Your task to perform on an android device: Search for logitech g pro on amazon.com, select the first entry, and add it to the cart. Image 0: 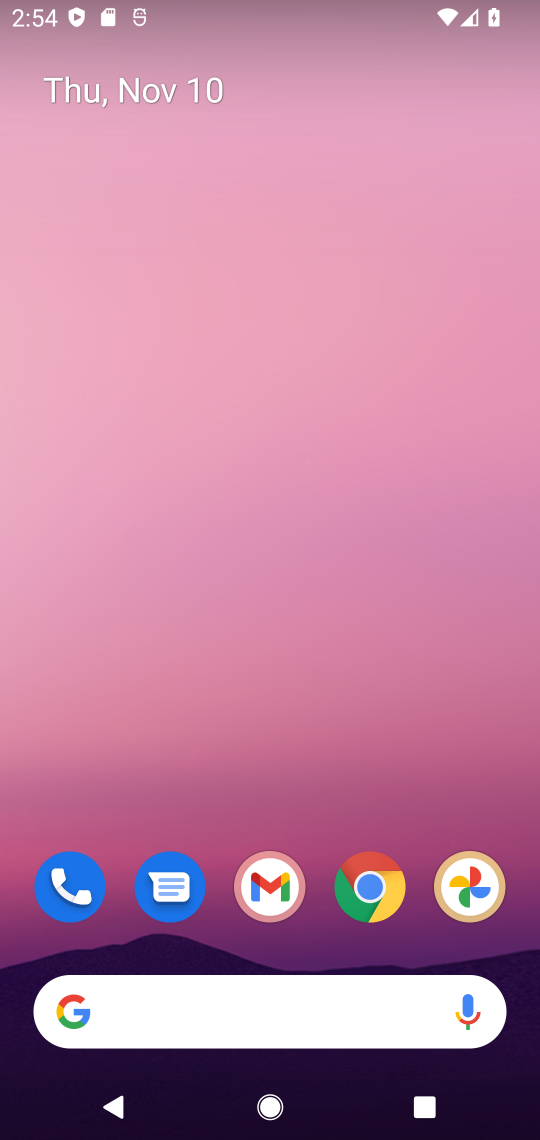
Step 0: drag from (302, 953) to (336, 5)
Your task to perform on an android device: Search for logitech g pro on amazon.com, select the first entry, and add it to the cart. Image 1: 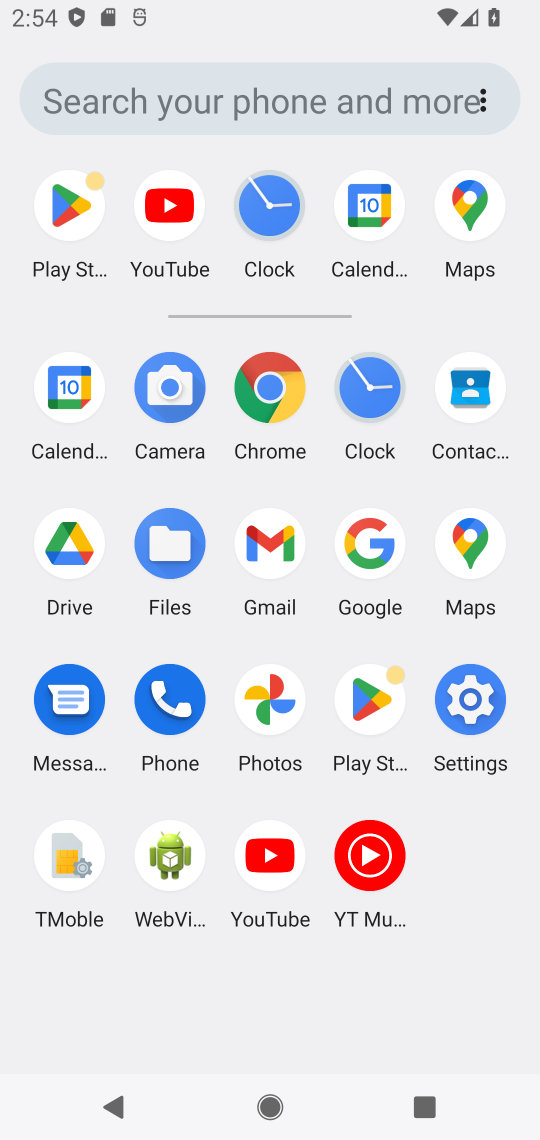
Step 1: click (265, 391)
Your task to perform on an android device: Search for logitech g pro on amazon.com, select the first entry, and add it to the cart. Image 2: 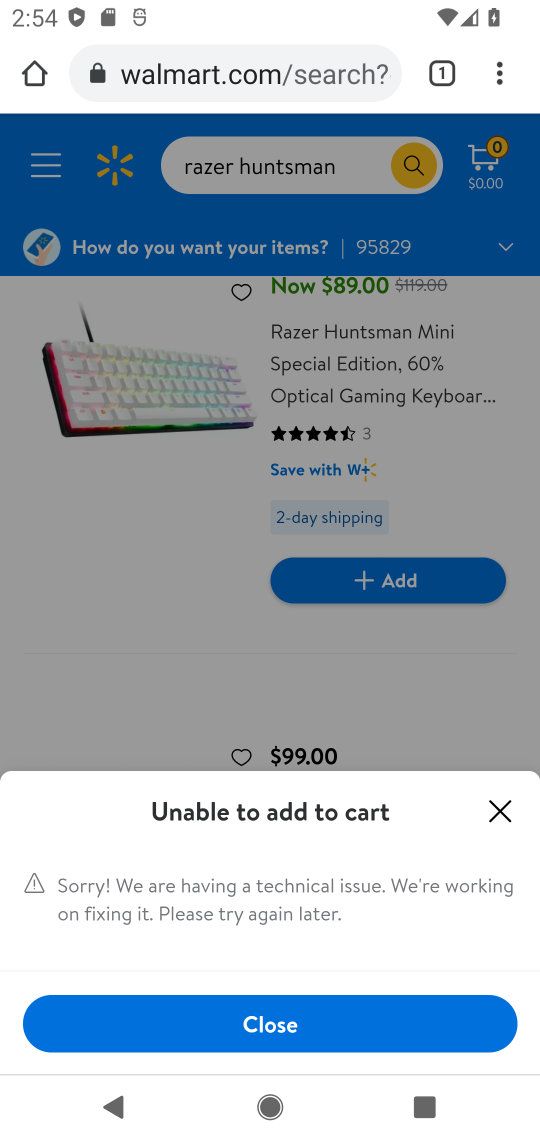
Step 2: click (295, 67)
Your task to perform on an android device: Search for logitech g pro on amazon.com, select the first entry, and add it to the cart. Image 3: 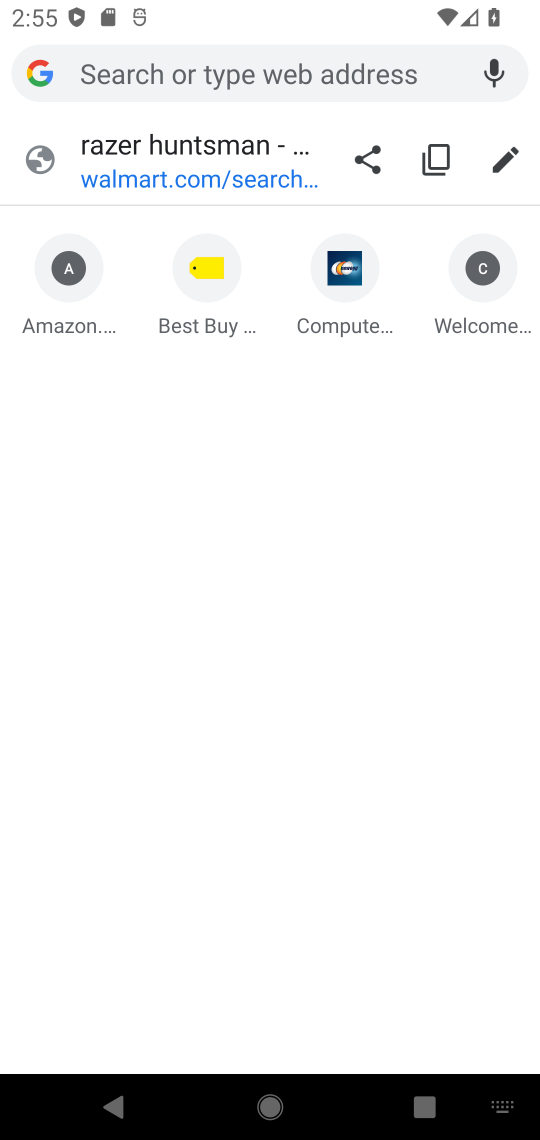
Step 3: type "amazon.com"
Your task to perform on an android device: Search for logitech g pro on amazon.com, select the first entry, and add it to the cart. Image 4: 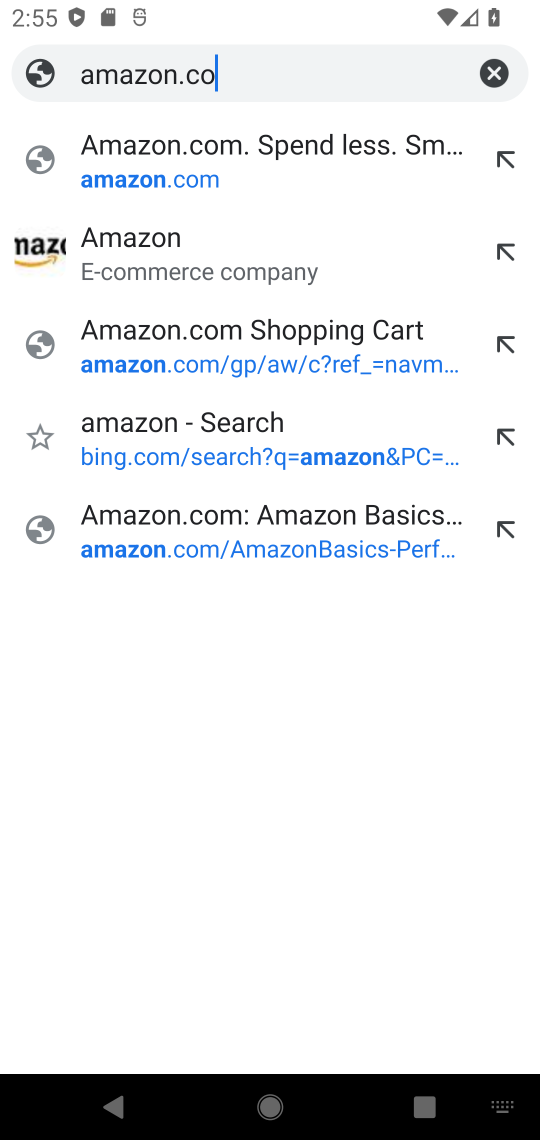
Step 4: press enter
Your task to perform on an android device: Search for logitech g pro on amazon.com, select the first entry, and add it to the cart. Image 5: 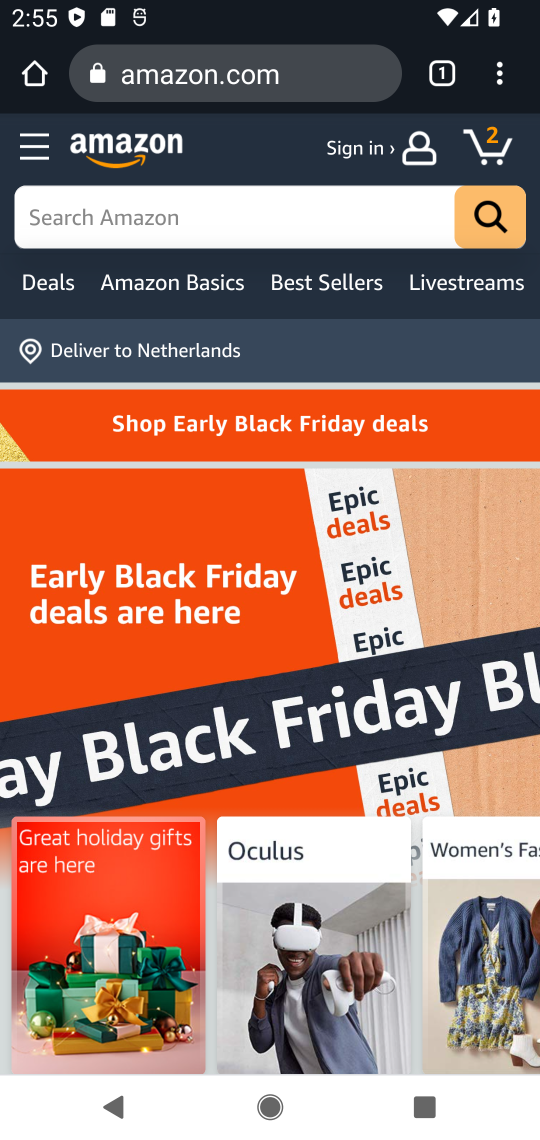
Step 5: click (232, 223)
Your task to perform on an android device: Search for logitech g pro on amazon.com, select the first entry, and add it to the cart. Image 6: 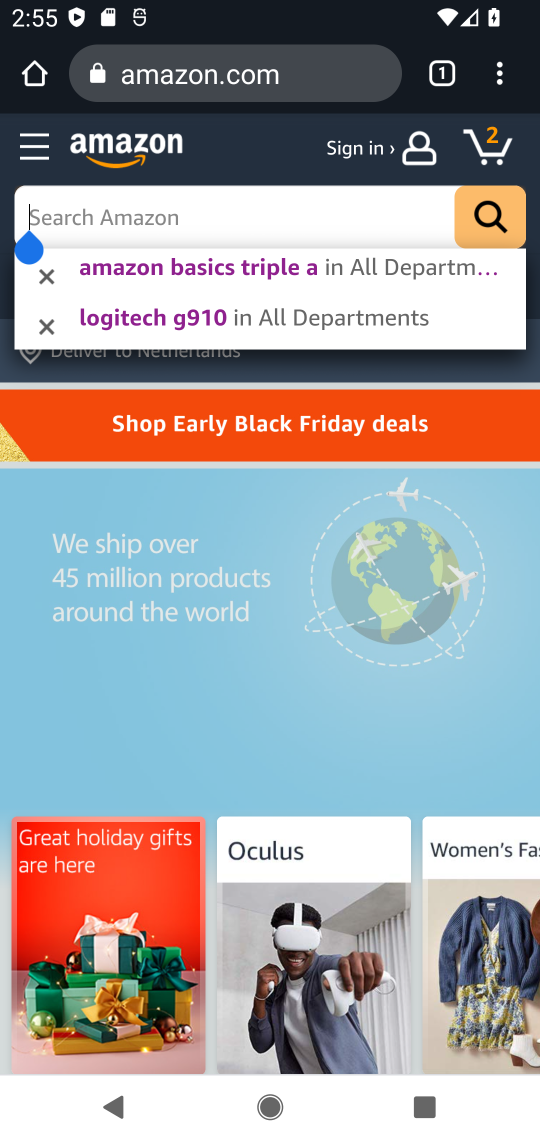
Step 6: type "logitech g pro"
Your task to perform on an android device: Search for logitech g pro on amazon.com, select the first entry, and add it to the cart. Image 7: 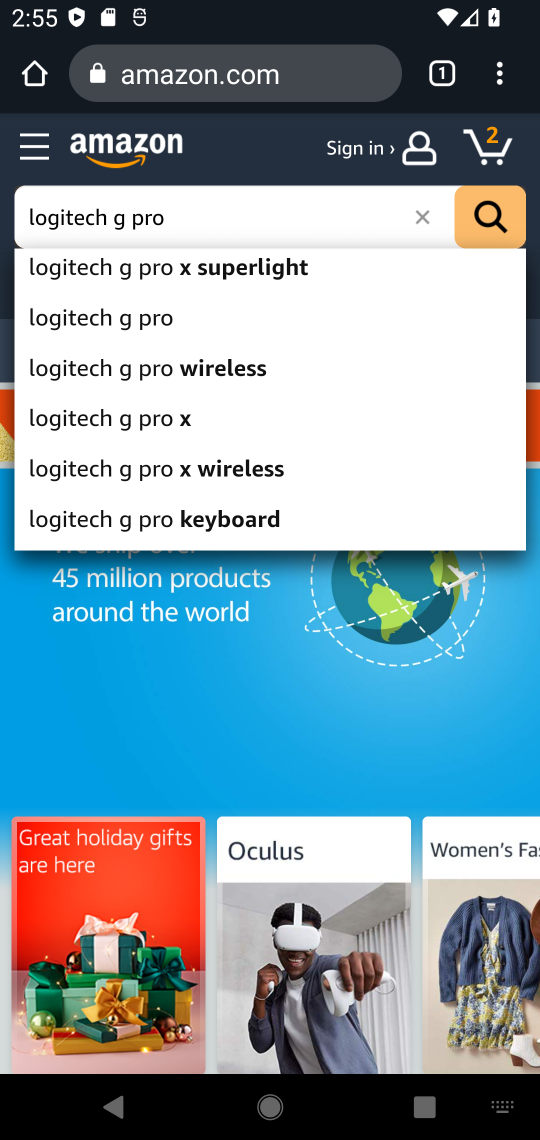
Step 7: press enter
Your task to perform on an android device: Search for logitech g pro on amazon.com, select the first entry, and add it to the cart. Image 8: 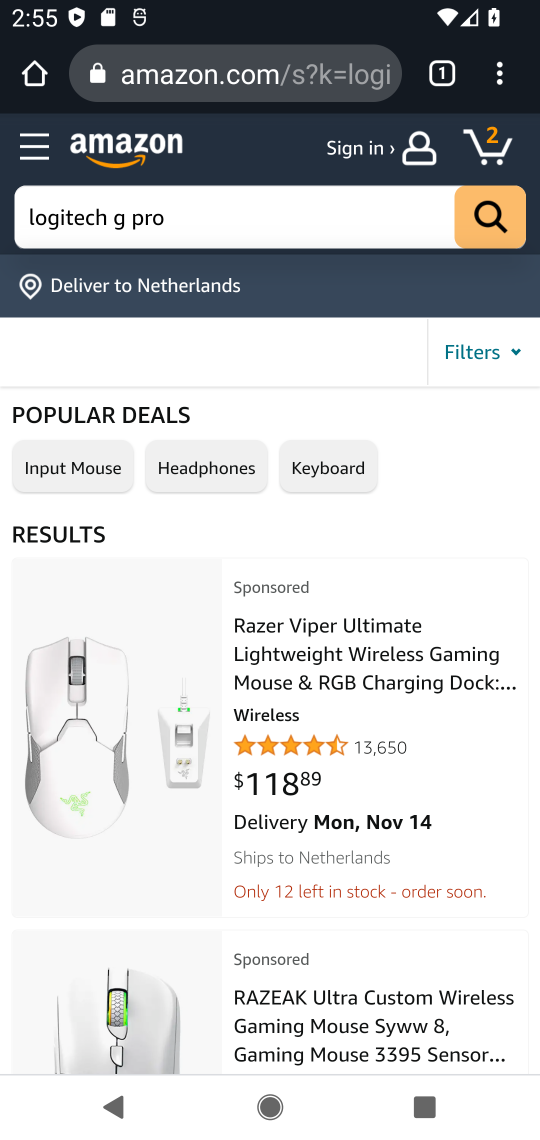
Step 8: drag from (391, 989) to (329, 264)
Your task to perform on an android device: Search for logitech g pro on amazon.com, select the first entry, and add it to the cart. Image 9: 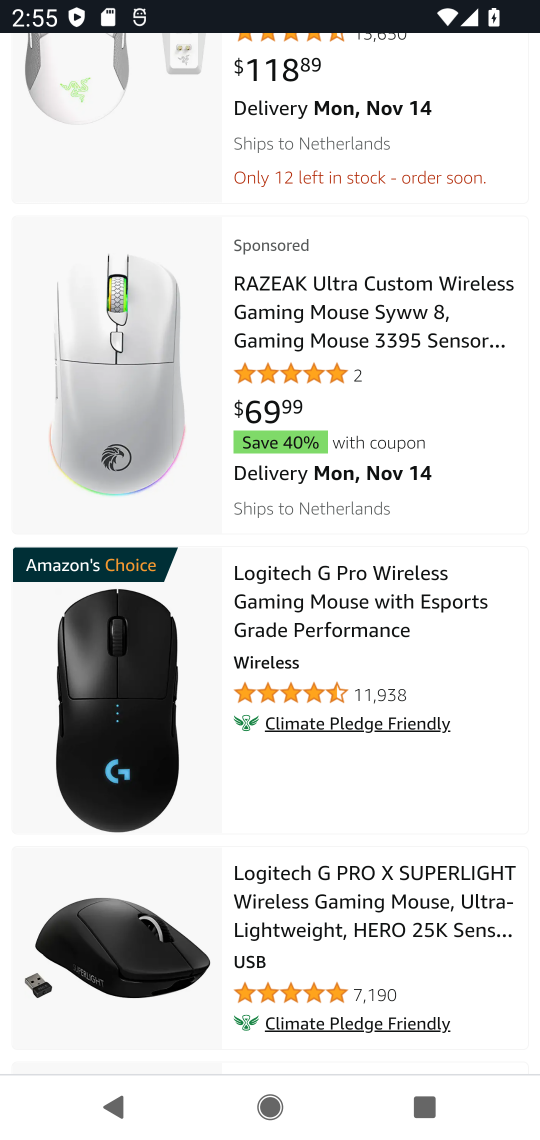
Step 9: click (329, 616)
Your task to perform on an android device: Search for logitech g pro on amazon.com, select the first entry, and add it to the cart. Image 10: 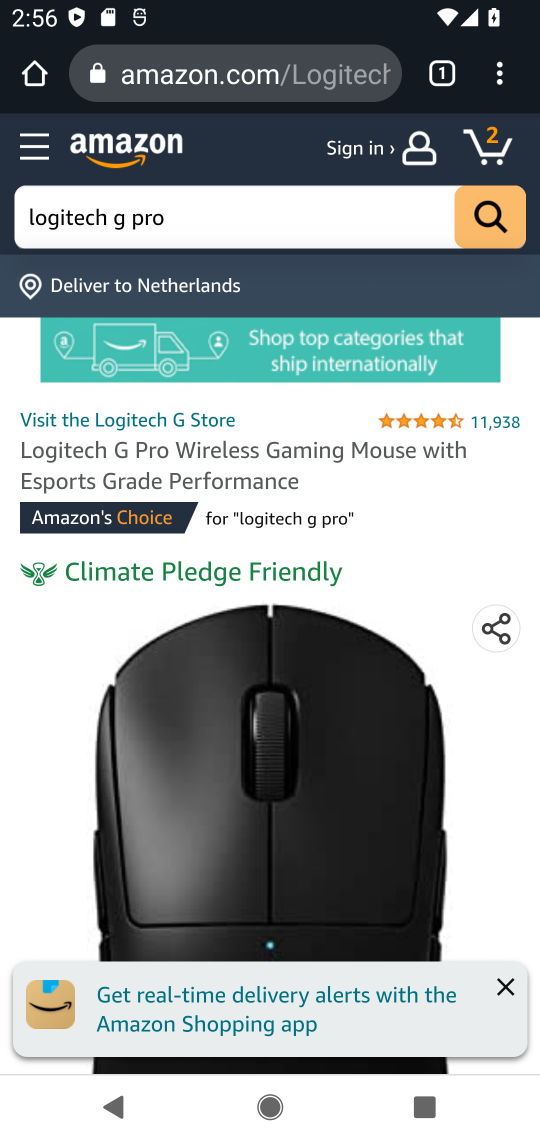
Step 10: task complete